Your task to perform on an android device: Go to accessibility settings Image 0: 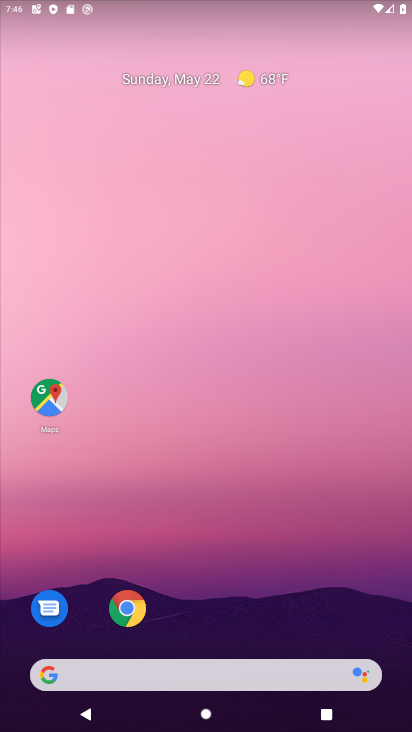
Step 0: drag from (221, 725) to (226, 149)
Your task to perform on an android device: Go to accessibility settings Image 1: 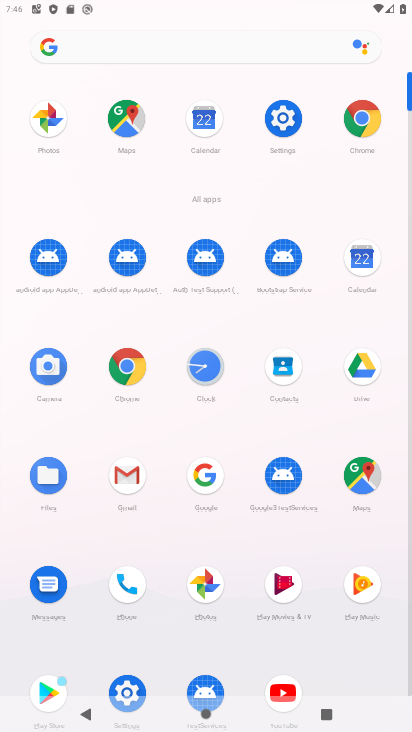
Step 1: click (293, 113)
Your task to perform on an android device: Go to accessibility settings Image 2: 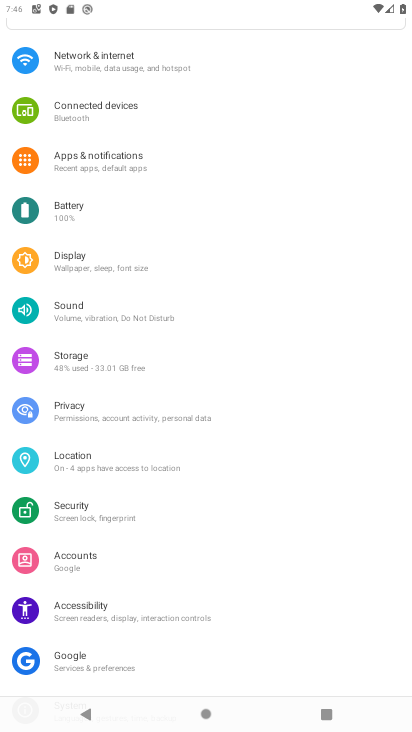
Step 2: click (104, 605)
Your task to perform on an android device: Go to accessibility settings Image 3: 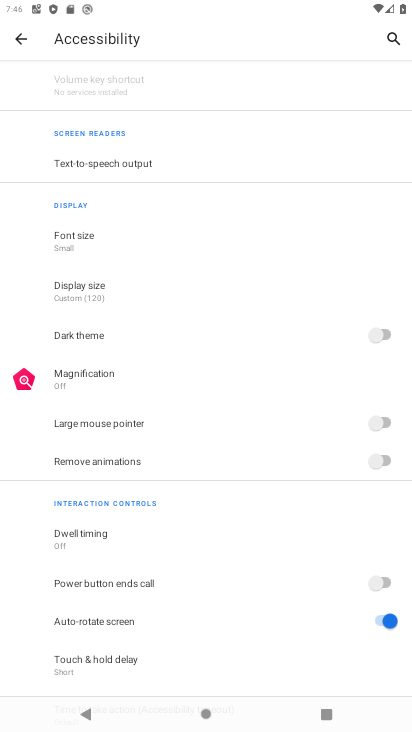
Step 3: task complete